Your task to perform on an android device: Is it going to rain today? Image 0: 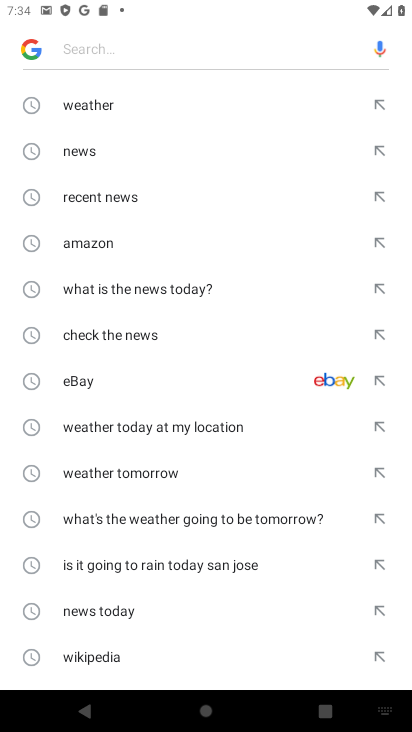
Step 0: press home button
Your task to perform on an android device: Is it going to rain today? Image 1: 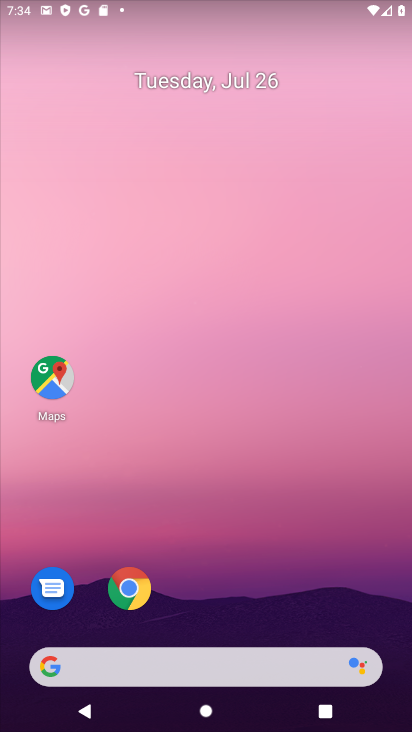
Step 1: drag from (206, 668) to (243, 306)
Your task to perform on an android device: Is it going to rain today? Image 2: 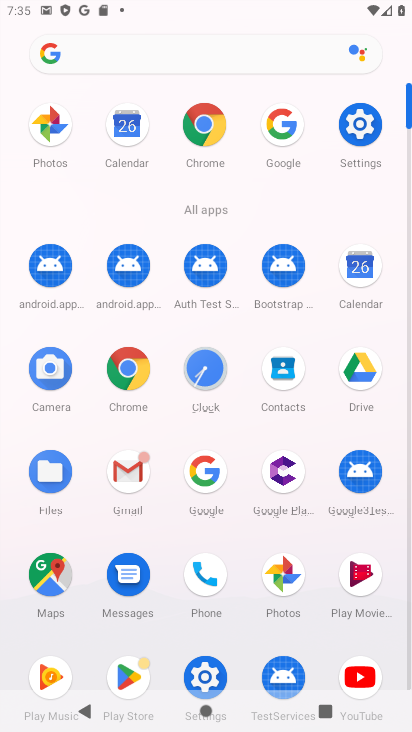
Step 2: click (221, 491)
Your task to perform on an android device: Is it going to rain today? Image 3: 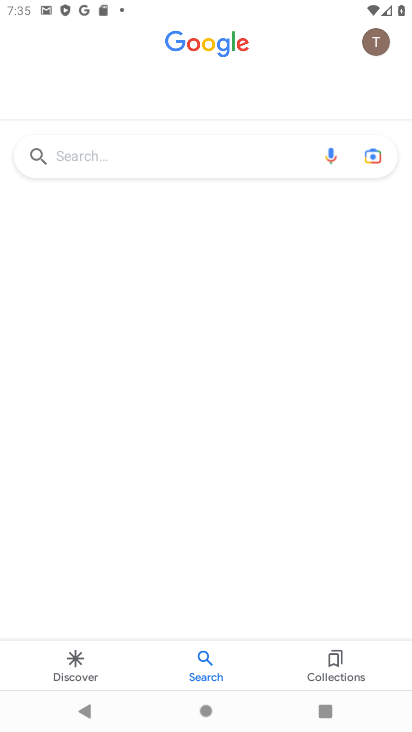
Step 3: click (135, 160)
Your task to perform on an android device: Is it going to rain today? Image 4: 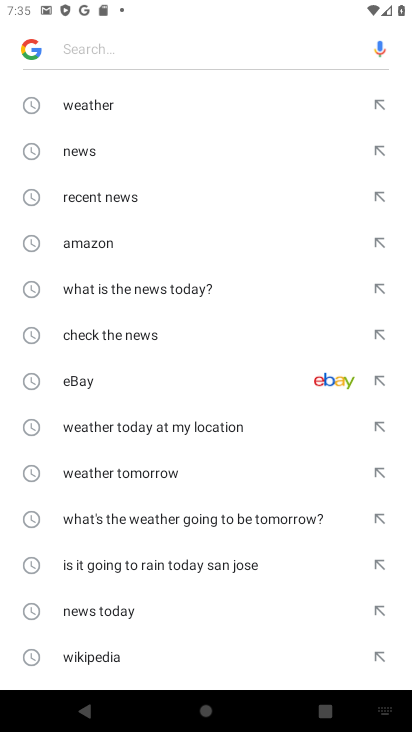
Step 4: click (94, 115)
Your task to perform on an android device: Is it going to rain today? Image 5: 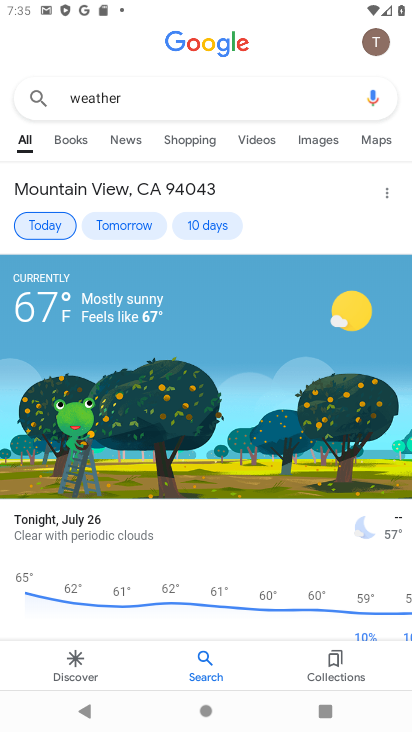
Step 5: task complete